Your task to perform on an android device: change timer sound Image 0: 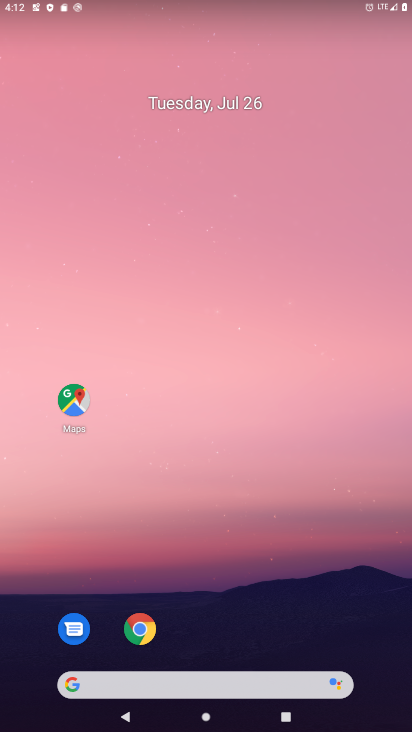
Step 0: drag from (231, 728) to (254, 105)
Your task to perform on an android device: change timer sound Image 1: 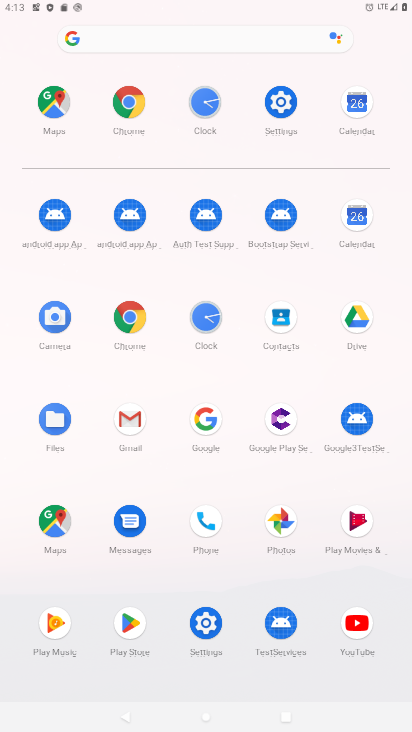
Step 1: click (205, 325)
Your task to perform on an android device: change timer sound Image 2: 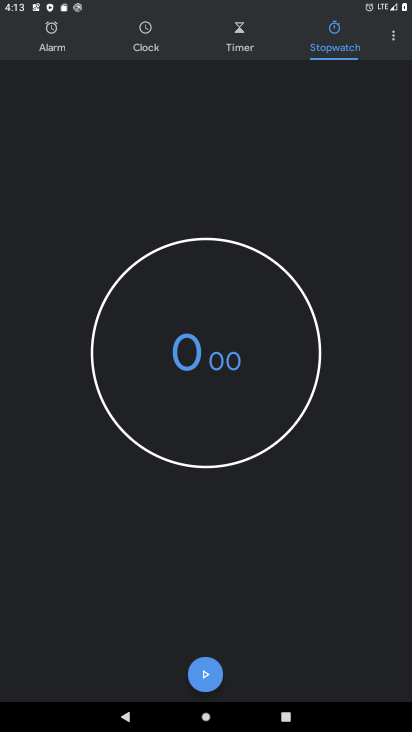
Step 2: click (393, 43)
Your task to perform on an android device: change timer sound Image 3: 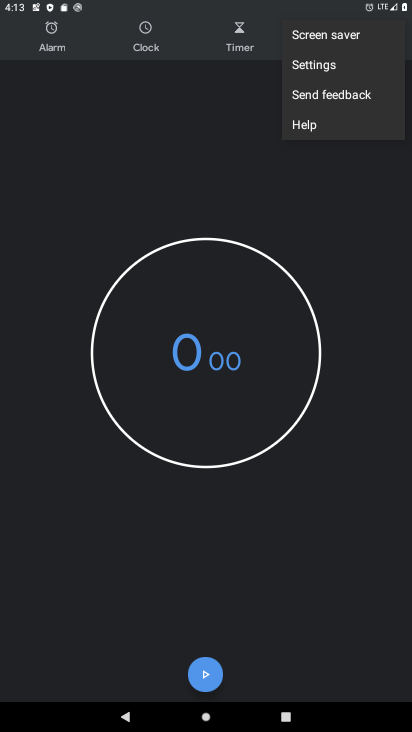
Step 3: click (307, 63)
Your task to perform on an android device: change timer sound Image 4: 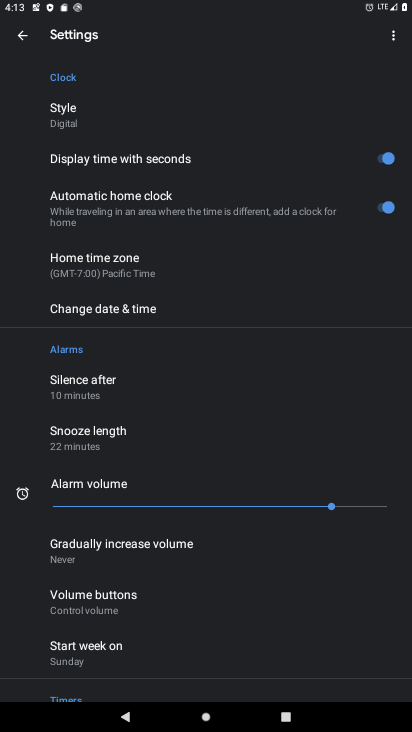
Step 4: drag from (159, 662) to (168, 473)
Your task to perform on an android device: change timer sound Image 5: 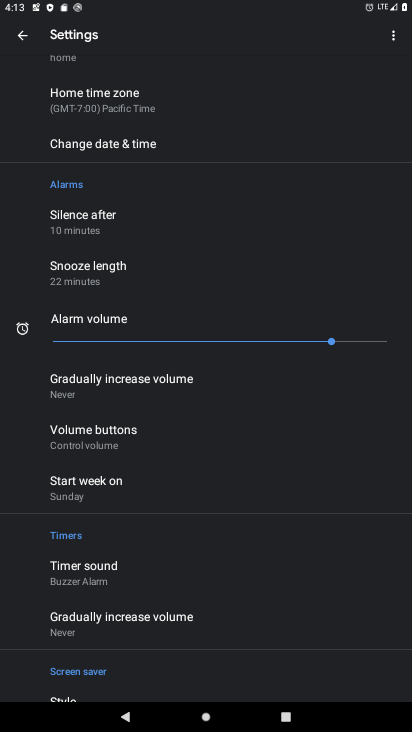
Step 5: click (91, 563)
Your task to perform on an android device: change timer sound Image 6: 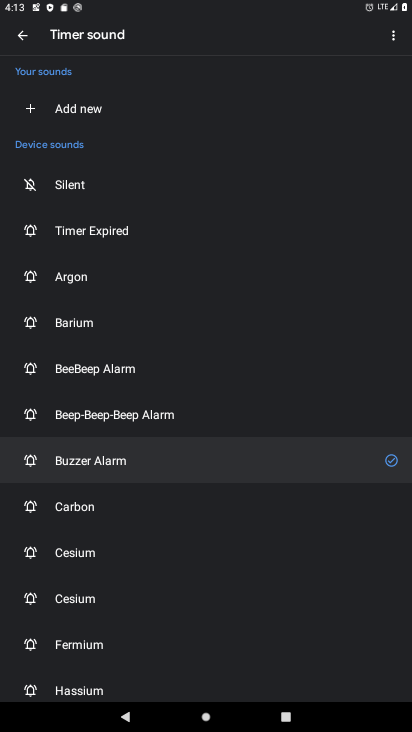
Step 6: click (72, 648)
Your task to perform on an android device: change timer sound Image 7: 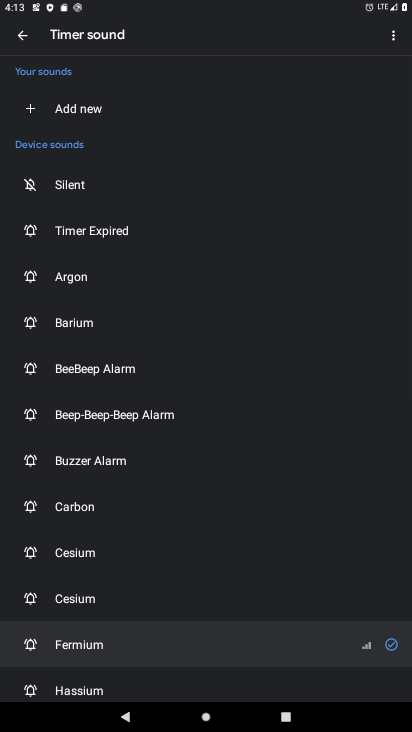
Step 7: task complete